Your task to perform on an android device: Go to Yahoo.com Image 0: 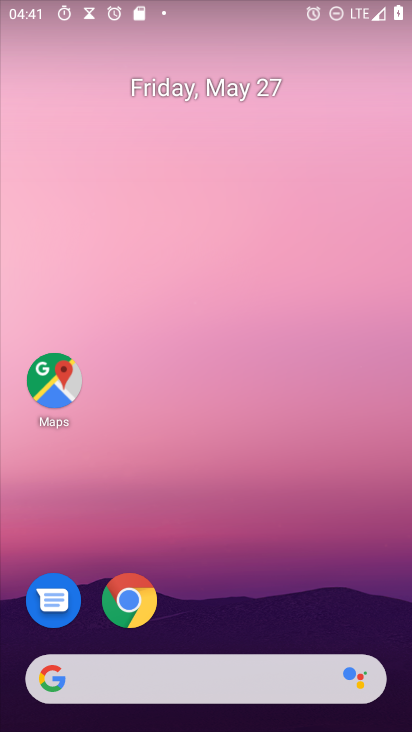
Step 0: click (137, 599)
Your task to perform on an android device: Go to Yahoo.com Image 1: 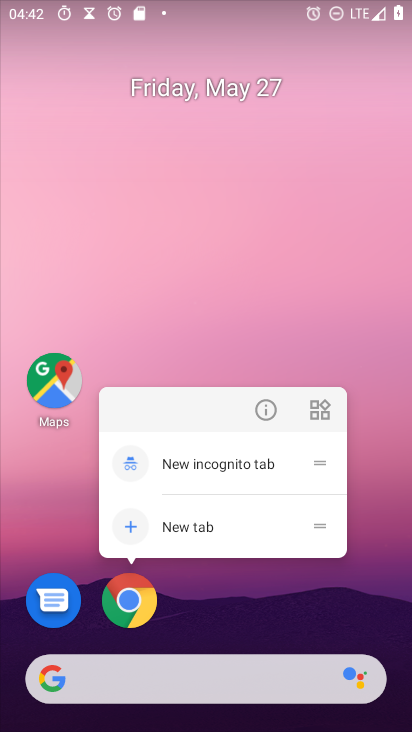
Step 1: click (132, 601)
Your task to perform on an android device: Go to Yahoo.com Image 2: 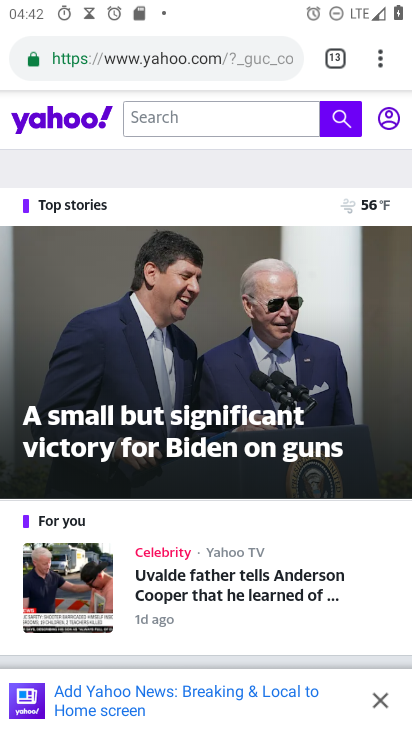
Step 2: task complete